Your task to perform on an android device: turn on the 24-hour format for clock Image 0: 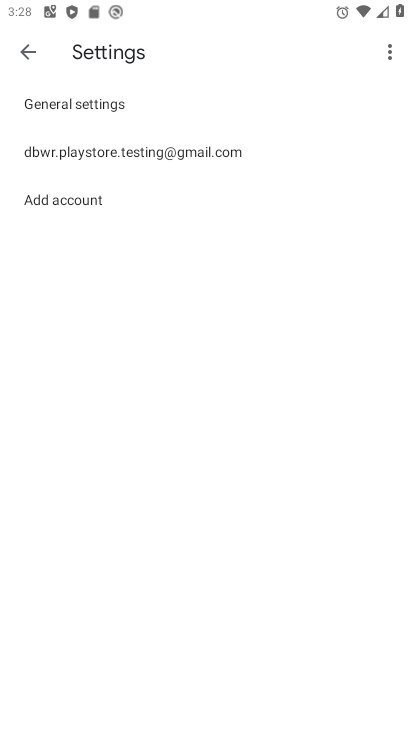
Step 0: press home button
Your task to perform on an android device: turn on the 24-hour format for clock Image 1: 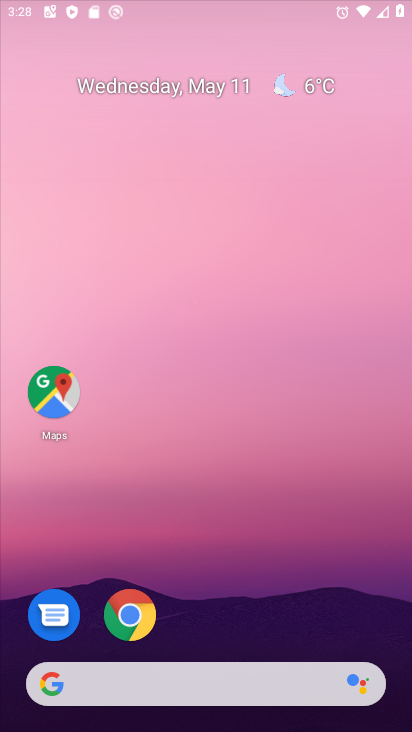
Step 1: drag from (262, 606) to (358, 169)
Your task to perform on an android device: turn on the 24-hour format for clock Image 2: 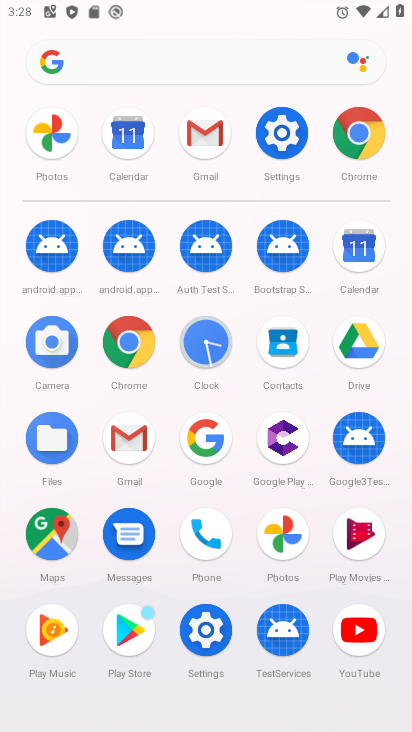
Step 2: click (209, 338)
Your task to perform on an android device: turn on the 24-hour format for clock Image 3: 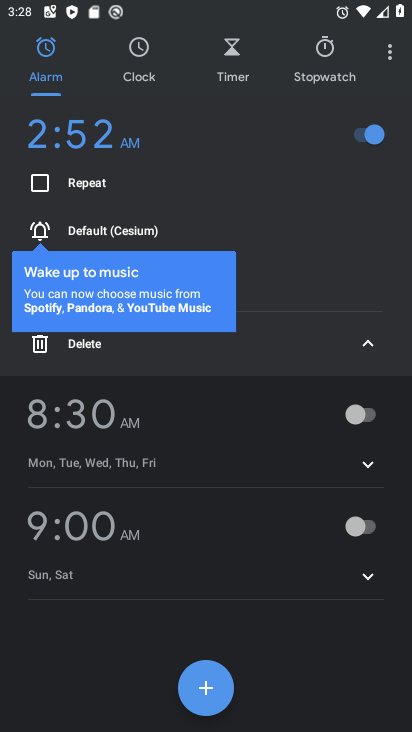
Step 3: click (392, 52)
Your task to perform on an android device: turn on the 24-hour format for clock Image 4: 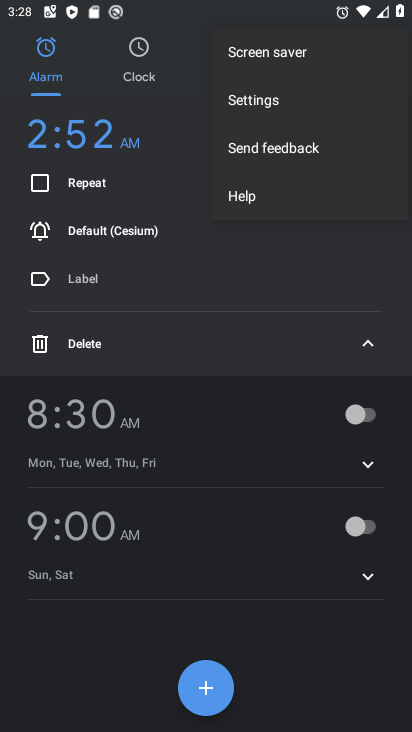
Step 4: click (251, 104)
Your task to perform on an android device: turn on the 24-hour format for clock Image 5: 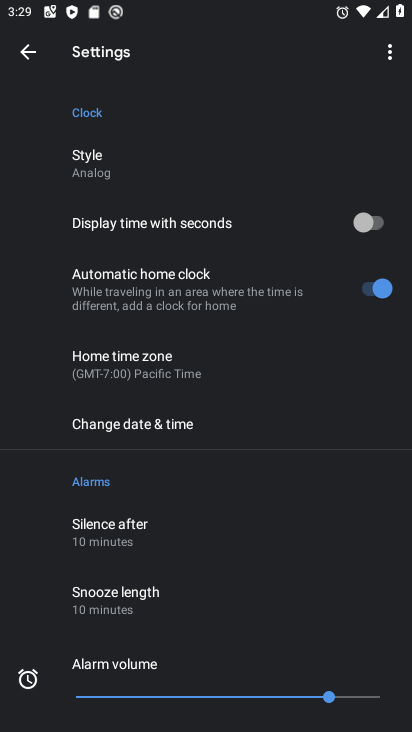
Step 5: click (191, 431)
Your task to perform on an android device: turn on the 24-hour format for clock Image 6: 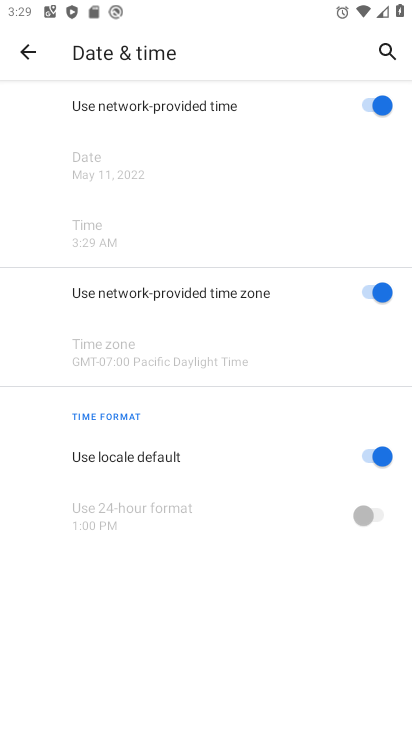
Step 6: click (368, 463)
Your task to perform on an android device: turn on the 24-hour format for clock Image 7: 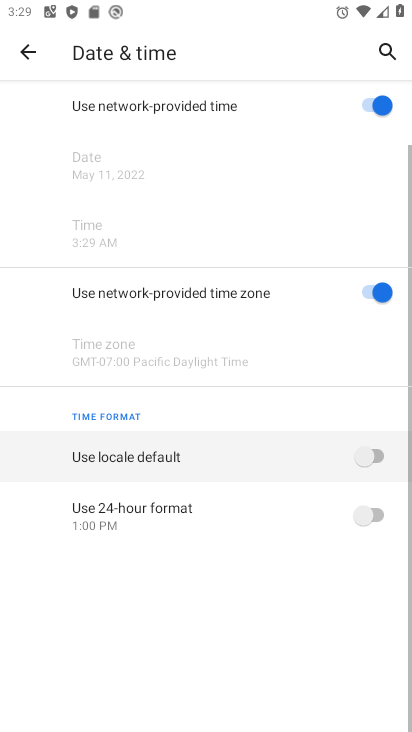
Step 7: click (383, 512)
Your task to perform on an android device: turn on the 24-hour format for clock Image 8: 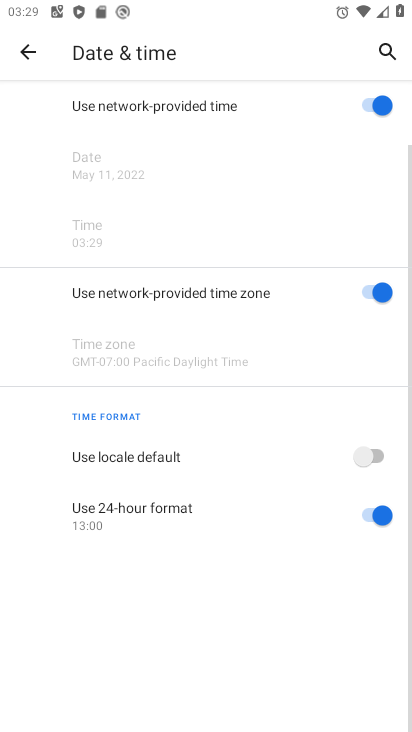
Step 8: task complete